Your task to perform on an android device: Open location settings Image 0: 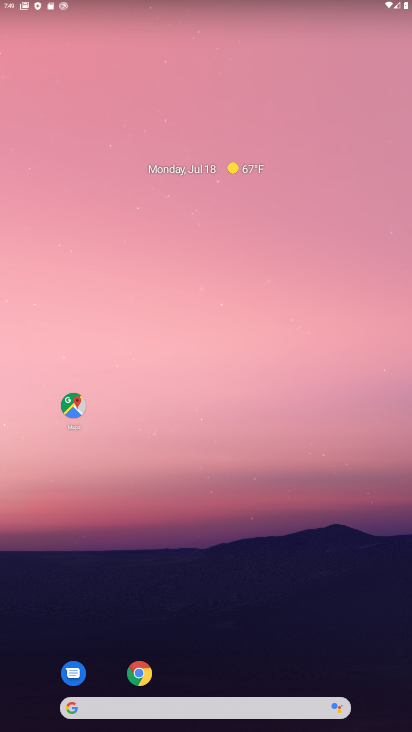
Step 0: drag from (251, 630) to (200, 183)
Your task to perform on an android device: Open location settings Image 1: 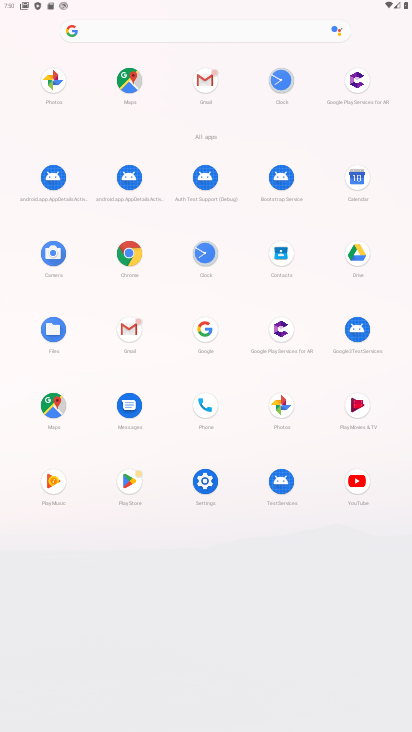
Step 1: click (202, 483)
Your task to perform on an android device: Open location settings Image 2: 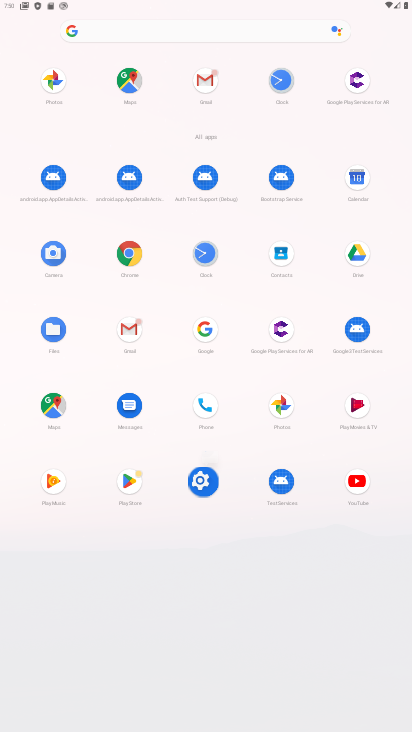
Step 2: click (200, 479)
Your task to perform on an android device: Open location settings Image 3: 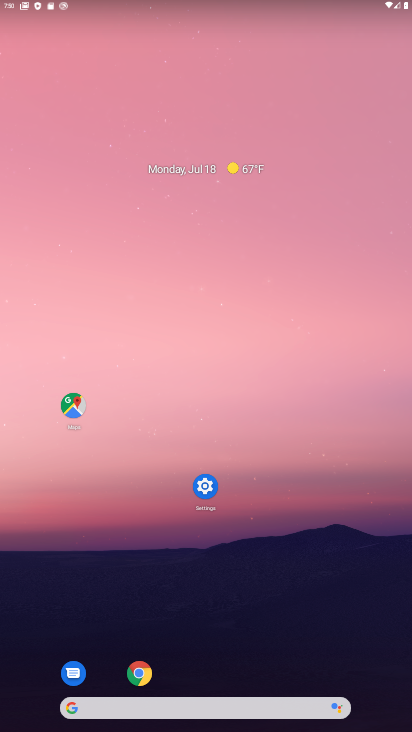
Step 3: click (193, 484)
Your task to perform on an android device: Open location settings Image 4: 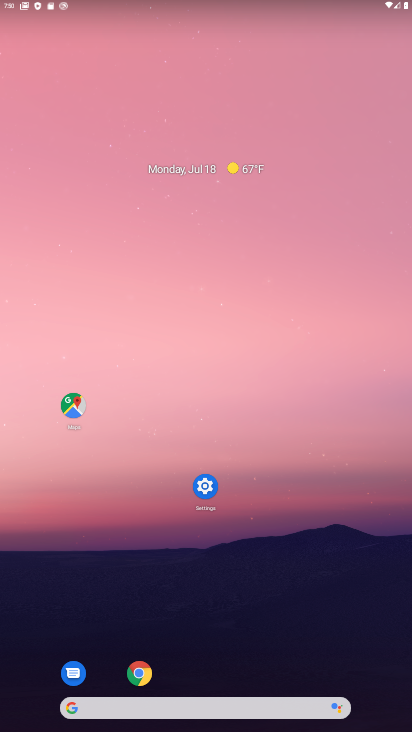
Step 4: click (267, 36)
Your task to perform on an android device: Open location settings Image 5: 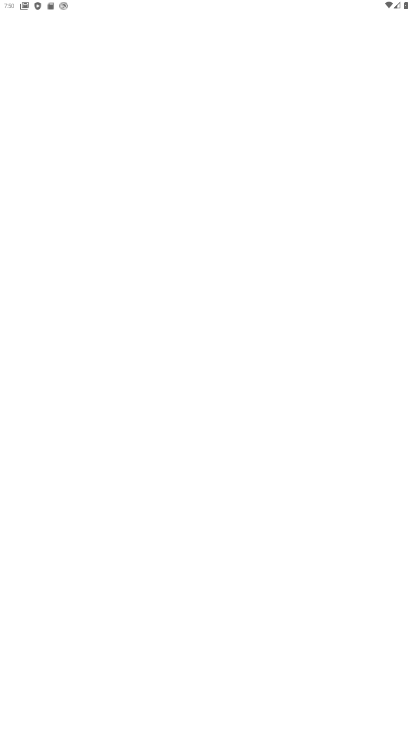
Step 5: click (188, 127)
Your task to perform on an android device: Open location settings Image 6: 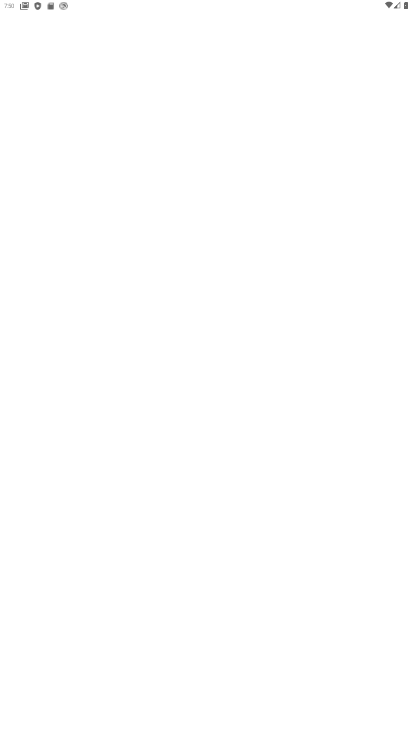
Step 6: click (178, 187)
Your task to perform on an android device: Open location settings Image 7: 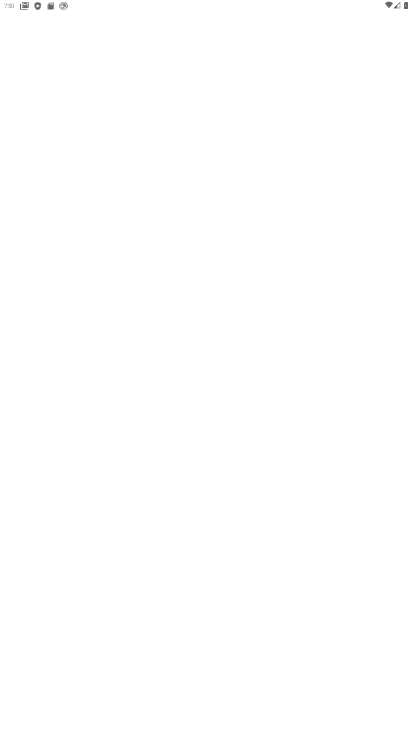
Step 7: click (244, 39)
Your task to perform on an android device: Open location settings Image 8: 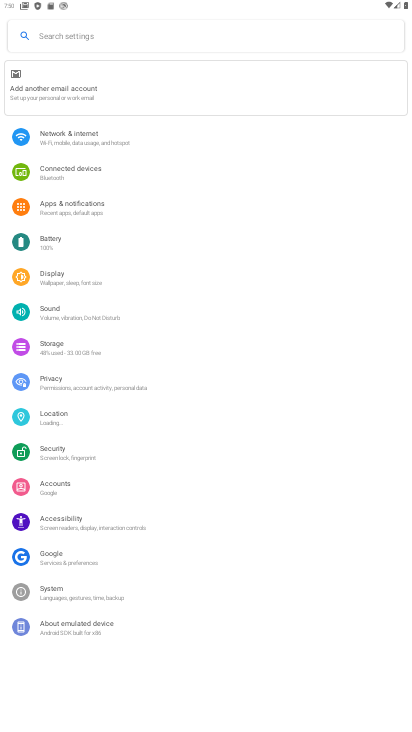
Step 8: click (52, 406)
Your task to perform on an android device: Open location settings Image 9: 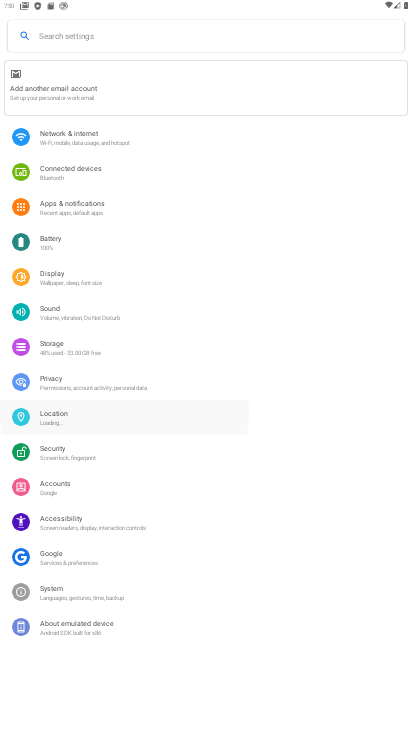
Step 9: click (58, 416)
Your task to perform on an android device: Open location settings Image 10: 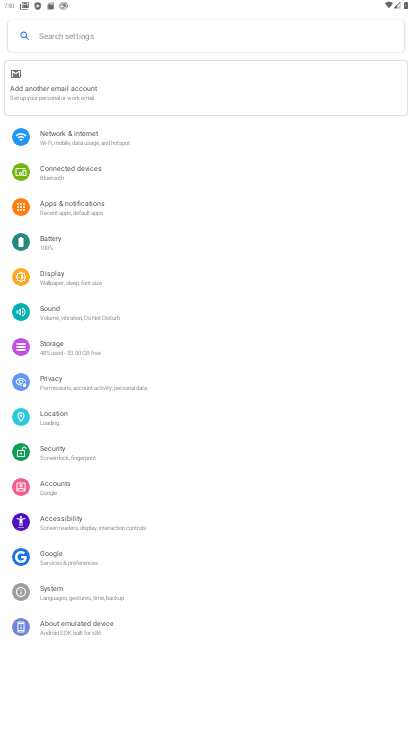
Step 10: click (59, 416)
Your task to perform on an android device: Open location settings Image 11: 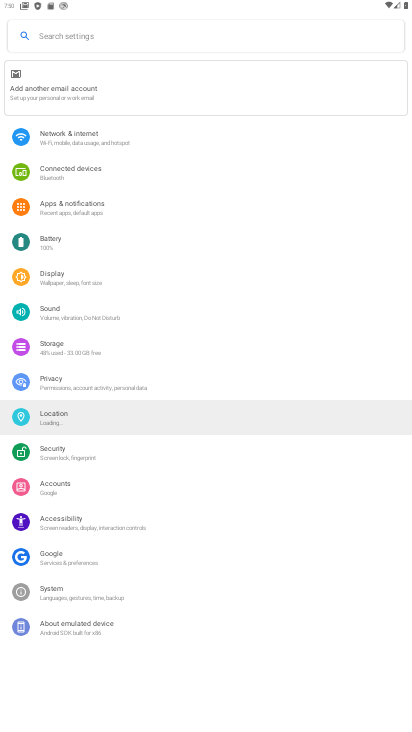
Step 11: click (61, 417)
Your task to perform on an android device: Open location settings Image 12: 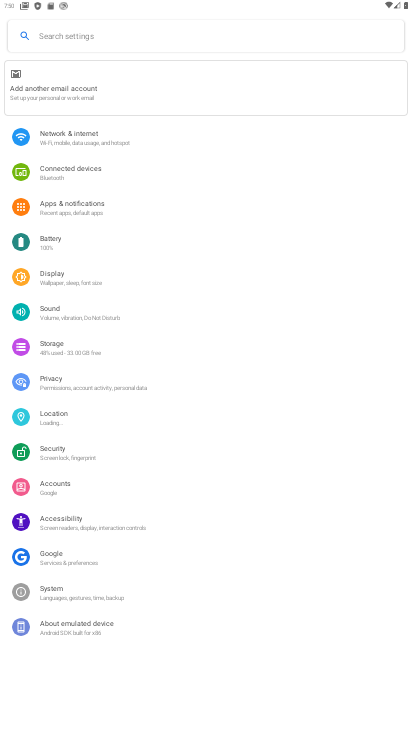
Step 12: click (61, 417)
Your task to perform on an android device: Open location settings Image 13: 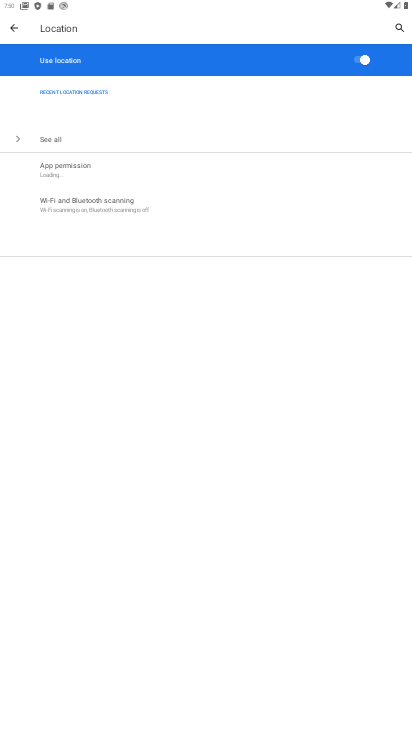
Step 13: click (63, 419)
Your task to perform on an android device: Open location settings Image 14: 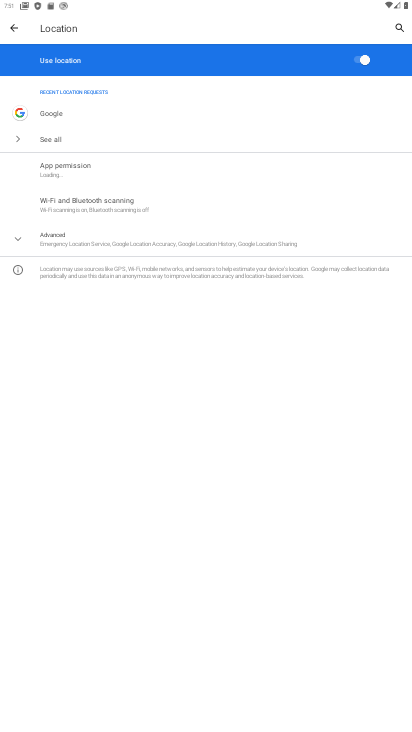
Step 14: task complete